Your task to perform on an android device: Go to internet settings Image 0: 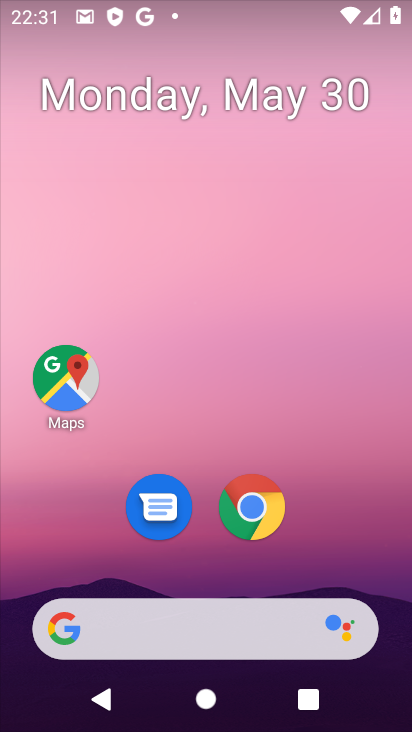
Step 0: drag from (378, 363) to (376, 147)
Your task to perform on an android device: Go to internet settings Image 1: 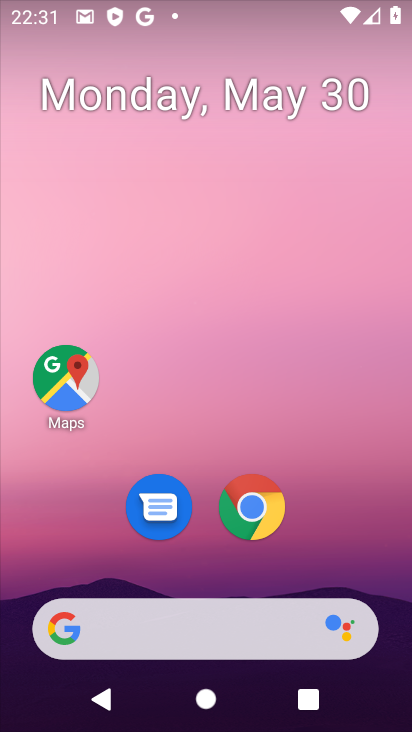
Step 1: drag from (368, 525) to (369, 139)
Your task to perform on an android device: Go to internet settings Image 2: 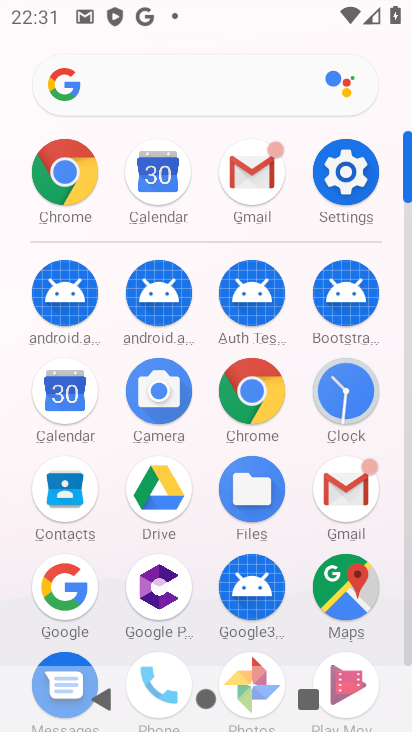
Step 2: click (351, 200)
Your task to perform on an android device: Go to internet settings Image 3: 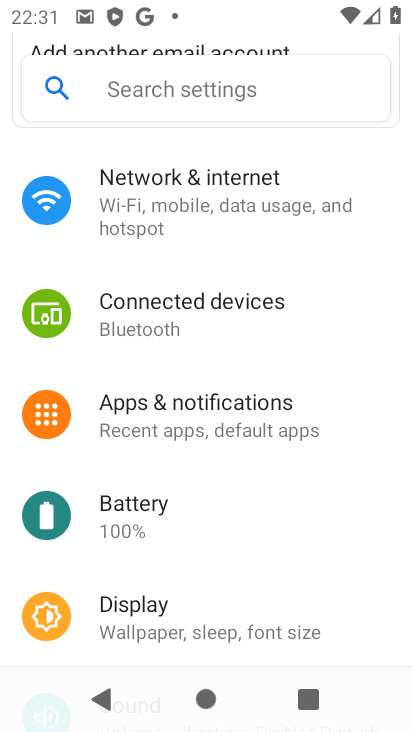
Step 3: drag from (349, 601) to (357, 455)
Your task to perform on an android device: Go to internet settings Image 4: 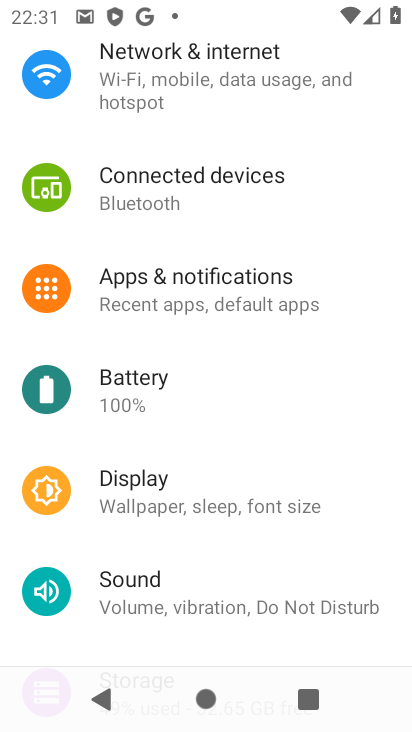
Step 4: drag from (359, 626) to (365, 459)
Your task to perform on an android device: Go to internet settings Image 5: 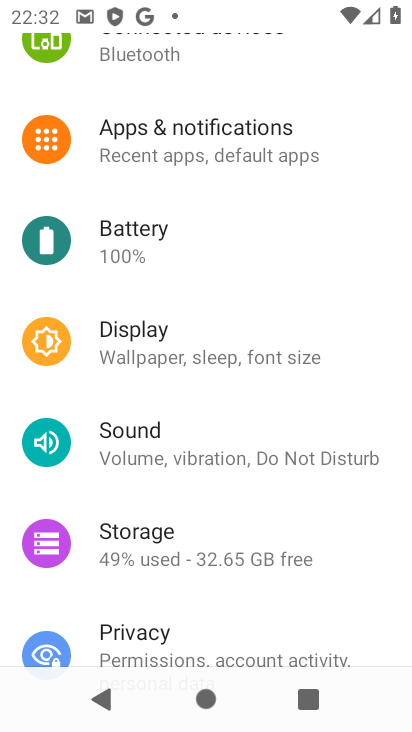
Step 5: drag from (344, 602) to (358, 428)
Your task to perform on an android device: Go to internet settings Image 6: 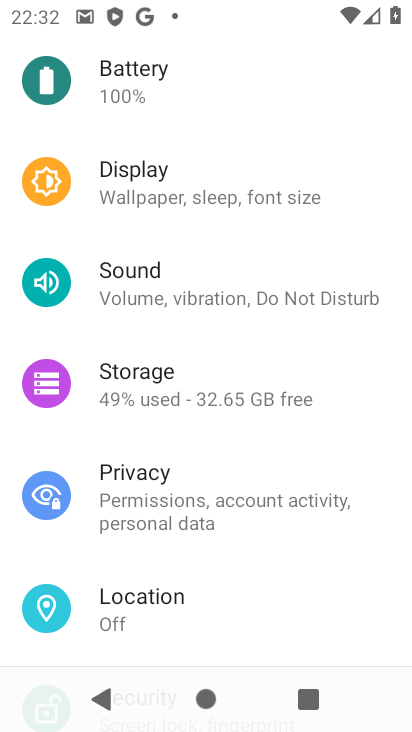
Step 6: drag from (341, 574) to (360, 401)
Your task to perform on an android device: Go to internet settings Image 7: 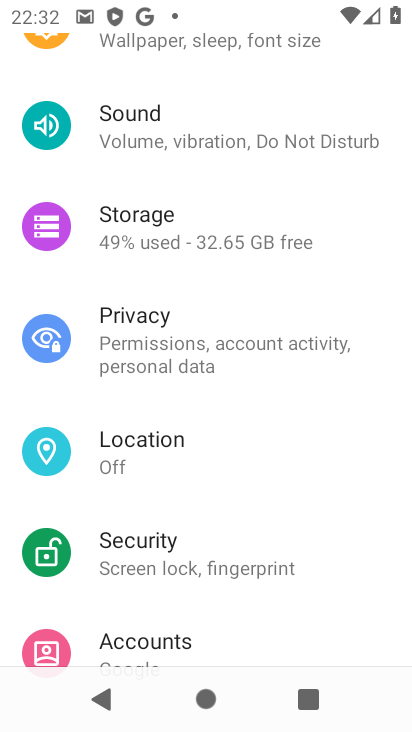
Step 7: drag from (352, 586) to (374, 406)
Your task to perform on an android device: Go to internet settings Image 8: 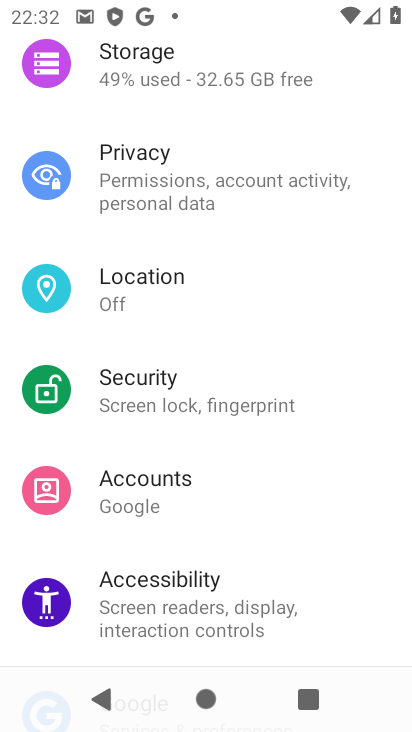
Step 8: drag from (349, 596) to (346, 375)
Your task to perform on an android device: Go to internet settings Image 9: 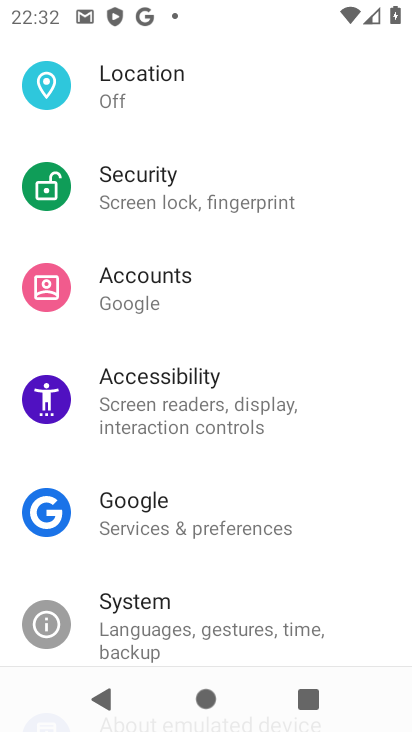
Step 9: drag from (352, 279) to (363, 423)
Your task to perform on an android device: Go to internet settings Image 10: 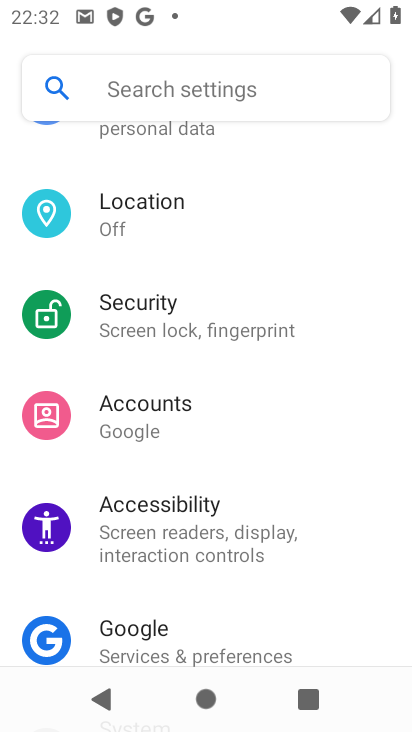
Step 10: drag from (353, 229) to (358, 350)
Your task to perform on an android device: Go to internet settings Image 11: 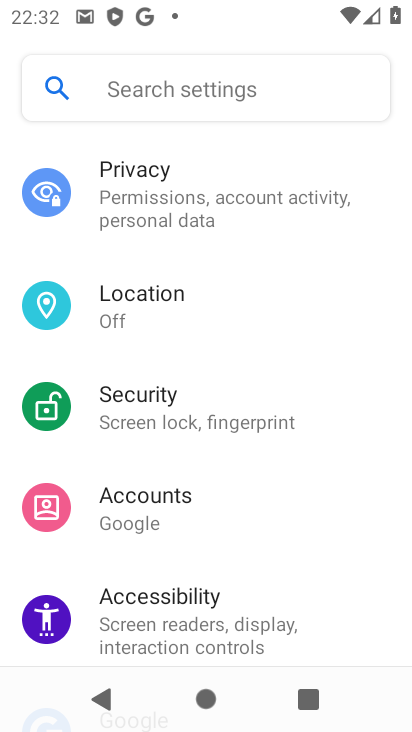
Step 11: drag from (371, 170) to (378, 325)
Your task to perform on an android device: Go to internet settings Image 12: 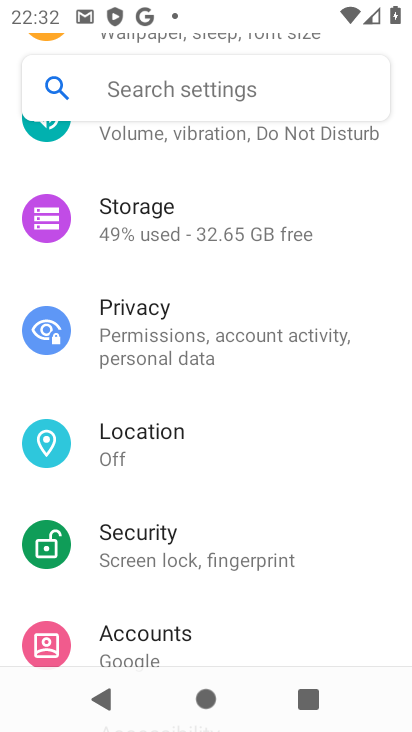
Step 12: drag from (332, 189) to (345, 348)
Your task to perform on an android device: Go to internet settings Image 13: 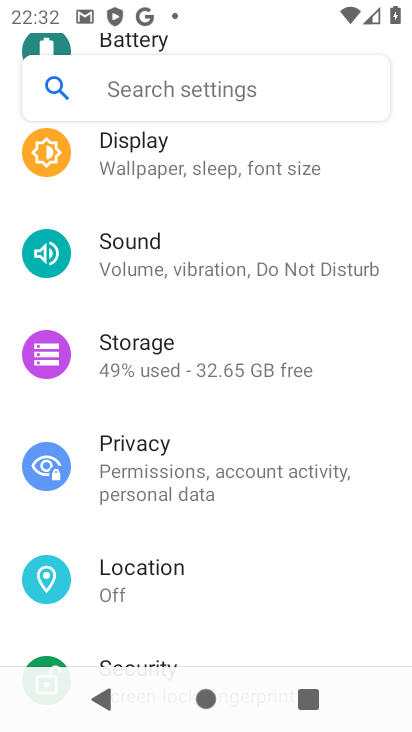
Step 13: drag from (339, 145) to (347, 312)
Your task to perform on an android device: Go to internet settings Image 14: 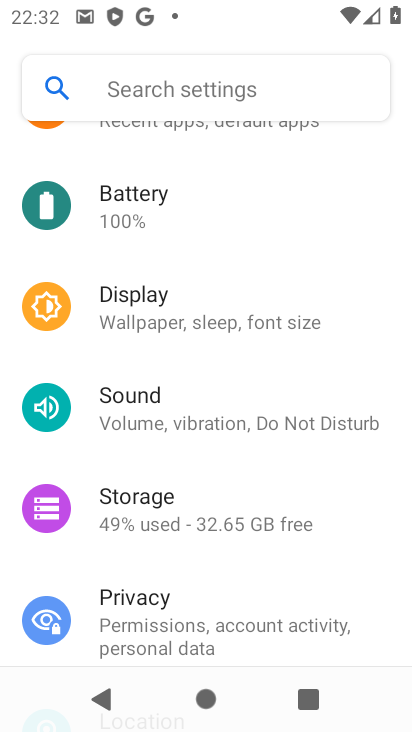
Step 14: drag from (324, 190) to (332, 359)
Your task to perform on an android device: Go to internet settings Image 15: 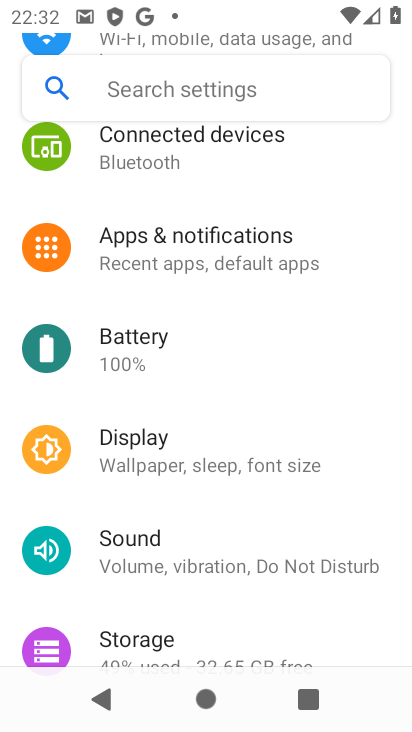
Step 15: drag from (336, 159) to (337, 345)
Your task to perform on an android device: Go to internet settings Image 16: 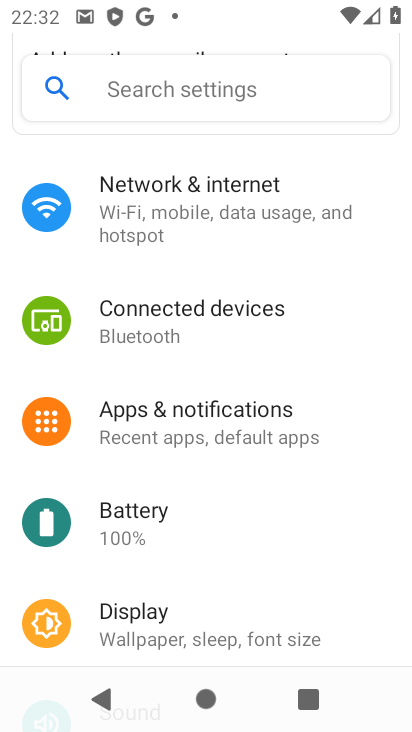
Step 16: click (286, 201)
Your task to perform on an android device: Go to internet settings Image 17: 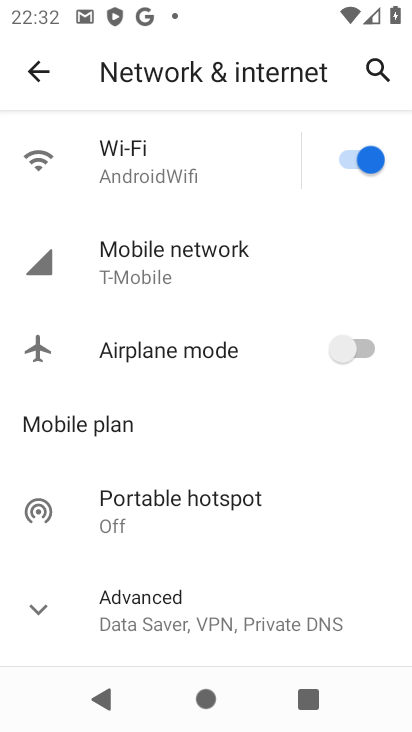
Step 17: task complete